Your task to perform on an android device: open app "Paramount+ | Peak Streaming" (install if not already installed), go to login, and select forgot password Image 0: 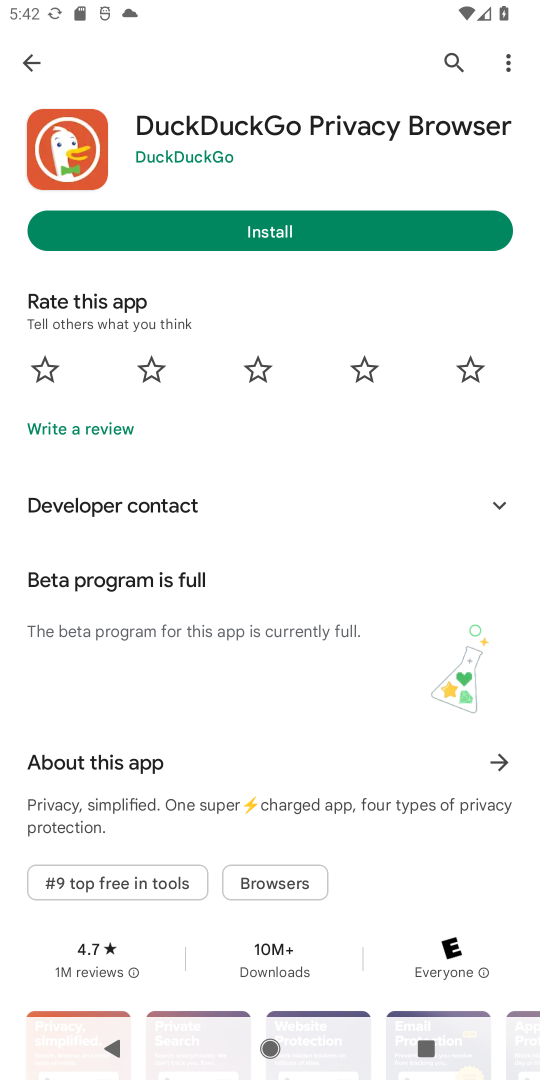
Step 0: press home button
Your task to perform on an android device: open app "Paramount+ | Peak Streaming" (install if not already installed), go to login, and select forgot password Image 1: 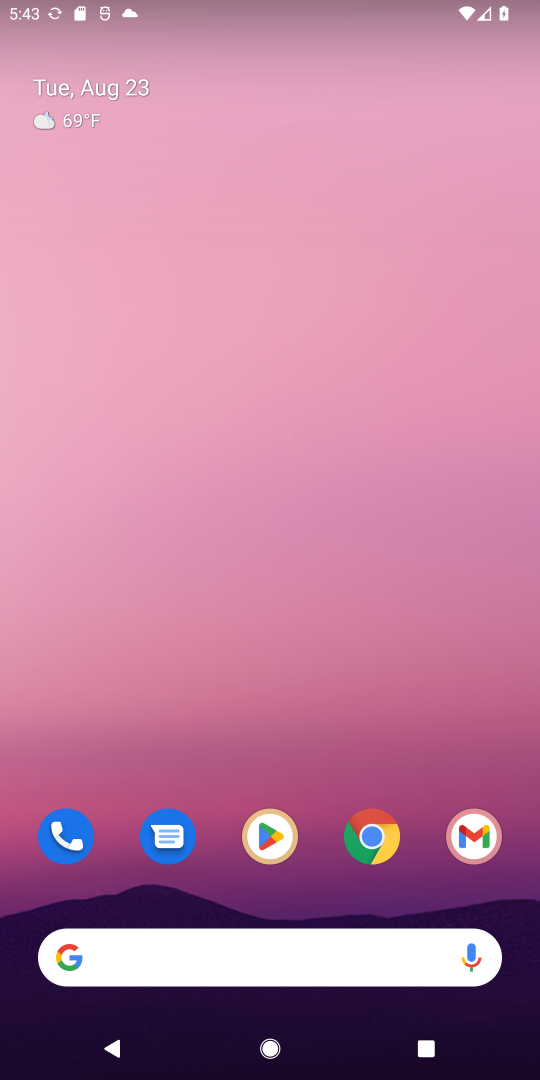
Step 1: click (268, 829)
Your task to perform on an android device: open app "Paramount+ | Peak Streaming" (install if not already installed), go to login, and select forgot password Image 2: 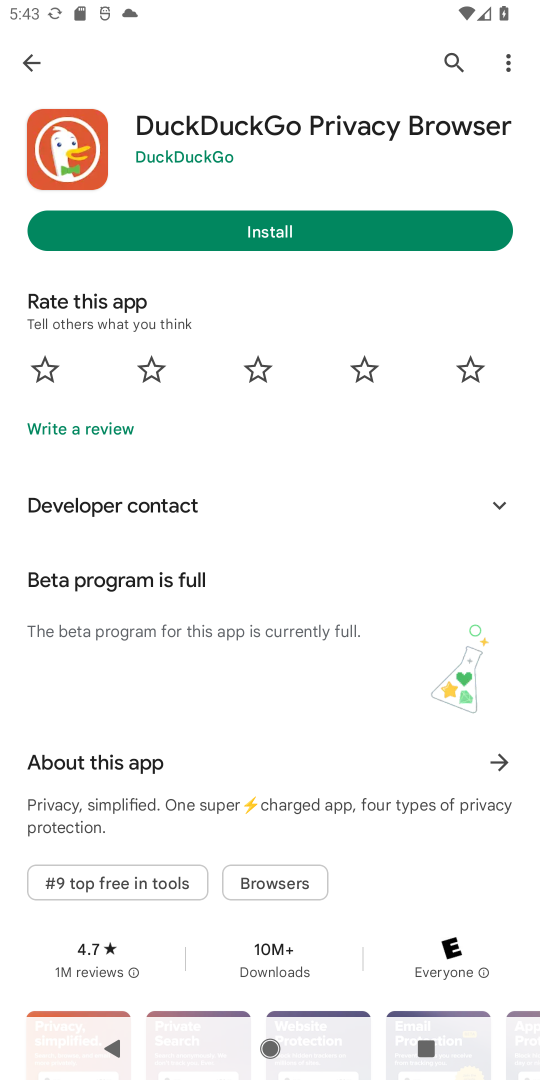
Step 2: click (445, 52)
Your task to perform on an android device: open app "Paramount+ | Peak Streaming" (install if not already installed), go to login, and select forgot password Image 3: 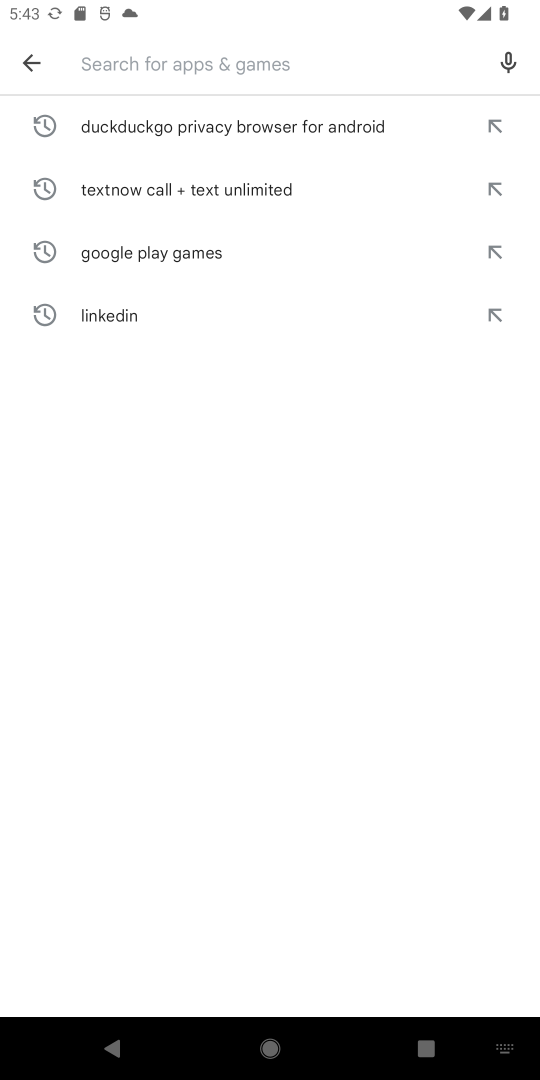
Step 3: type "Paramount+ | Peak Streaming"
Your task to perform on an android device: open app "Paramount+ | Peak Streaming" (install if not already installed), go to login, and select forgot password Image 4: 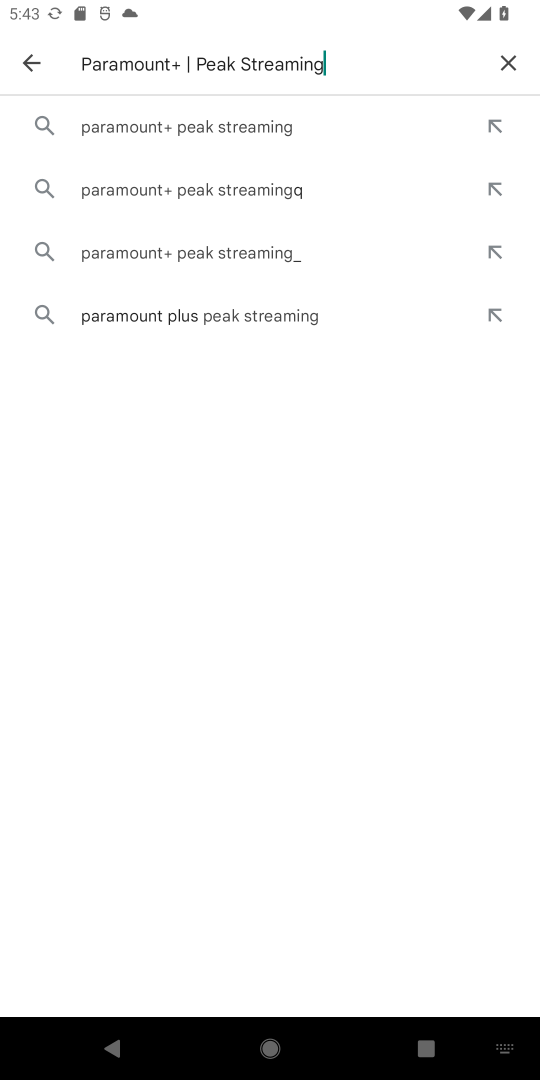
Step 4: click (132, 119)
Your task to perform on an android device: open app "Paramount+ | Peak Streaming" (install if not already installed), go to login, and select forgot password Image 5: 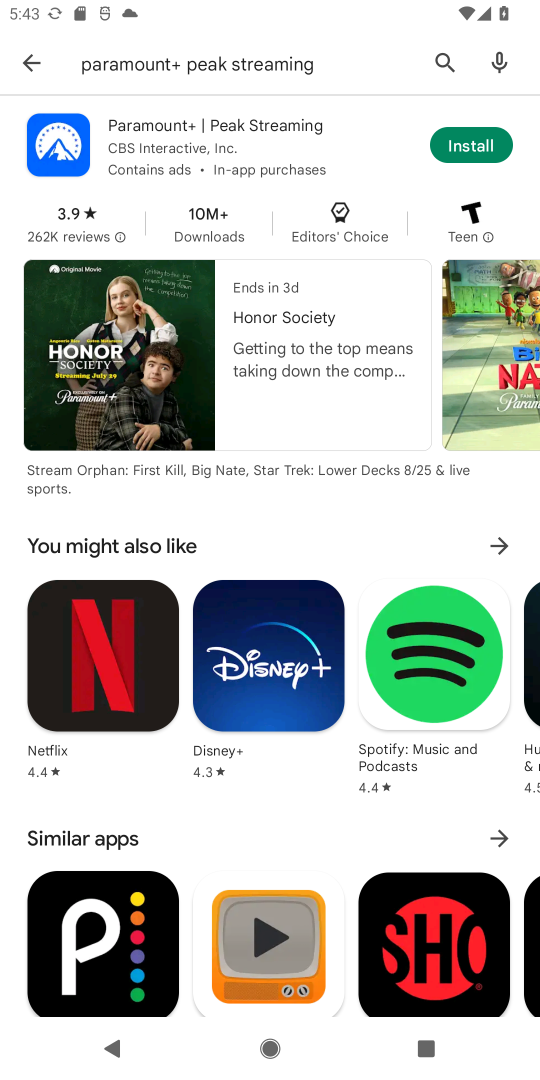
Step 5: click (248, 139)
Your task to perform on an android device: open app "Paramount+ | Peak Streaming" (install if not already installed), go to login, and select forgot password Image 6: 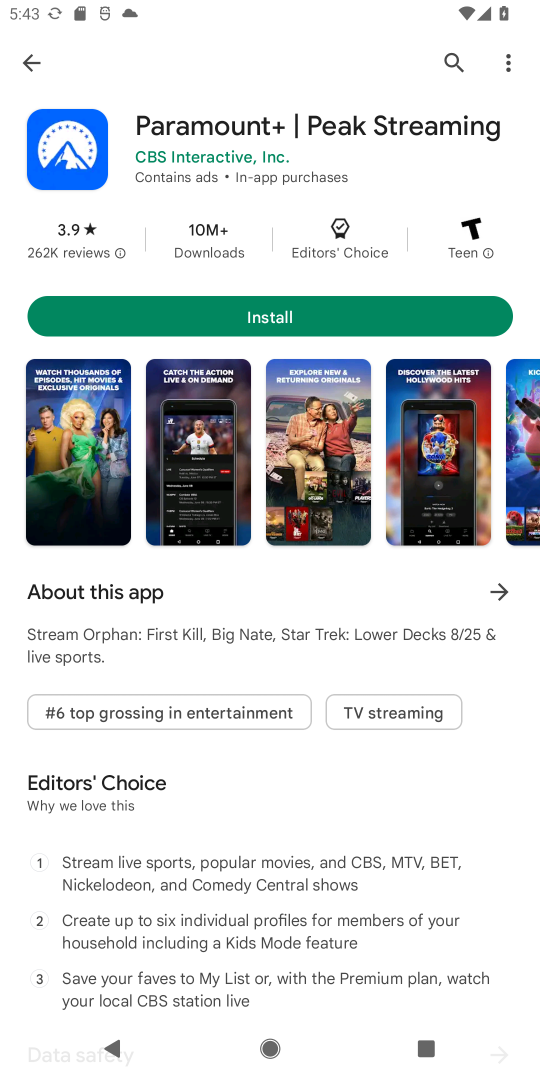
Step 6: click (265, 314)
Your task to perform on an android device: open app "Paramount+ | Peak Streaming" (install if not already installed), go to login, and select forgot password Image 7: 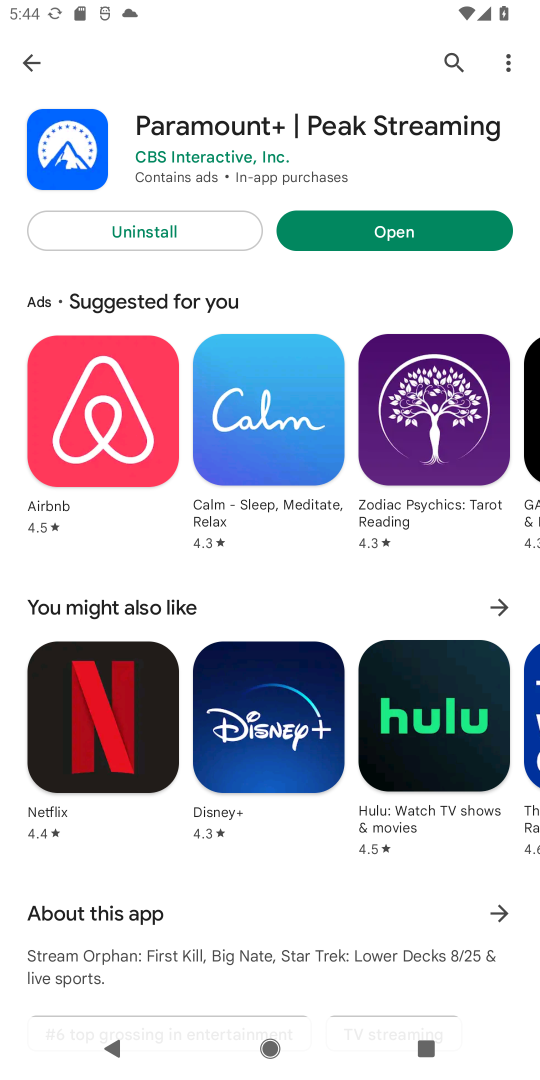
Step 7: click (393, 230)
Your task to perform on an android device: open app "Paramount+ | Peak Streaming" (install if not already installed), go to login, and select forgot password Image 8: 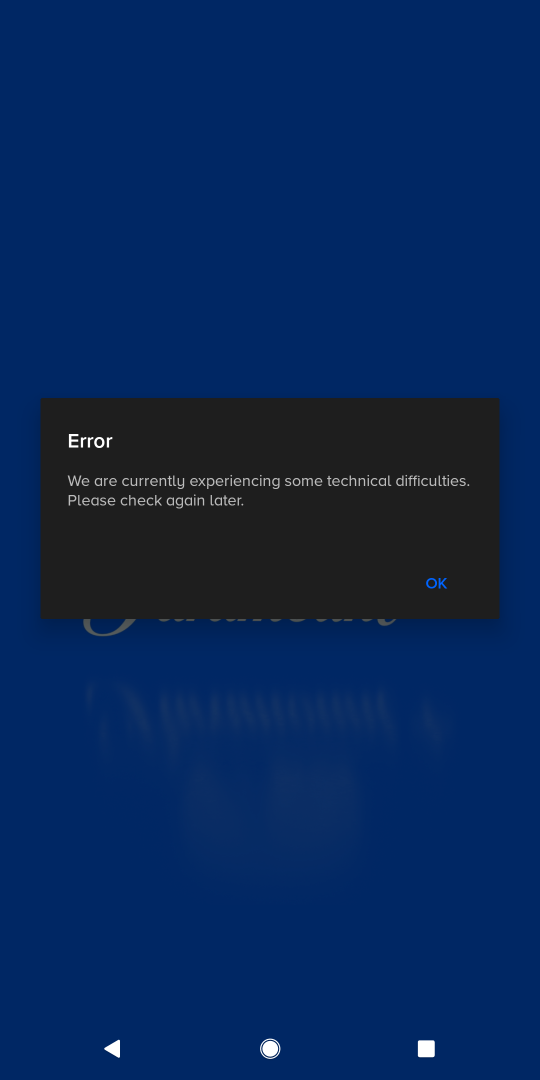
Step 8: click (434, 579)
Your task to perform on an android device: open app "Paramount+ | Peak Streaming" (install if not already installed), go to login, and select forgot password Image 9: 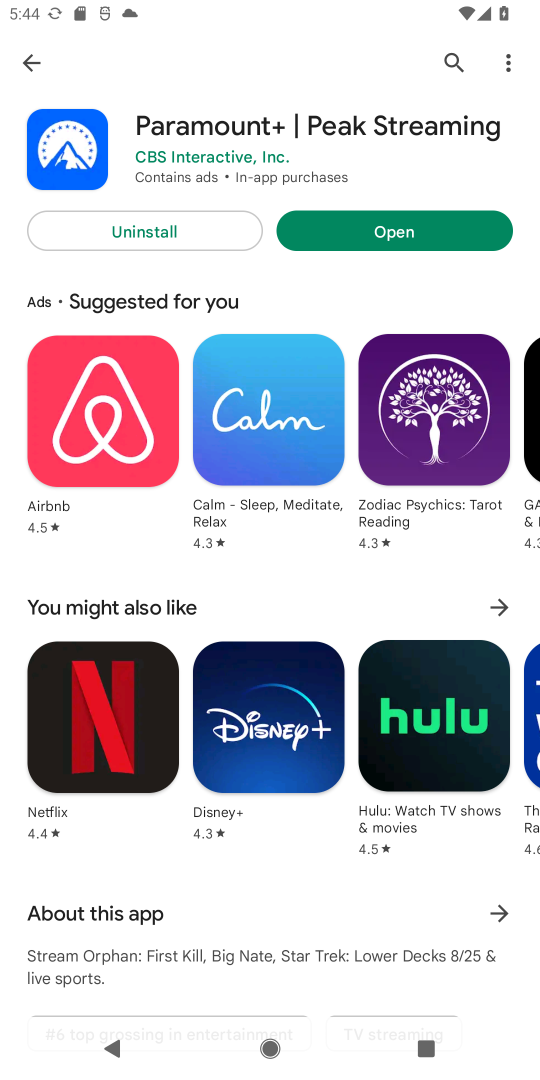
Step 9: task complete